Your task to perform on an android device: Open display settings Image 0: 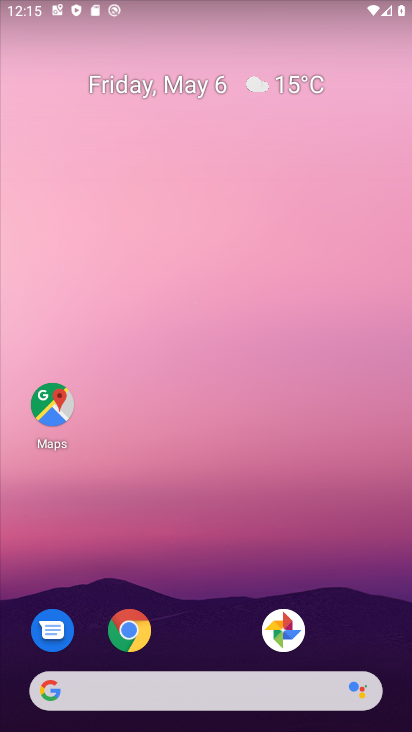
Step 0: drag from (284, 566) to (331, 59)
Your task to perform on an android device: Open display settings Image 1: 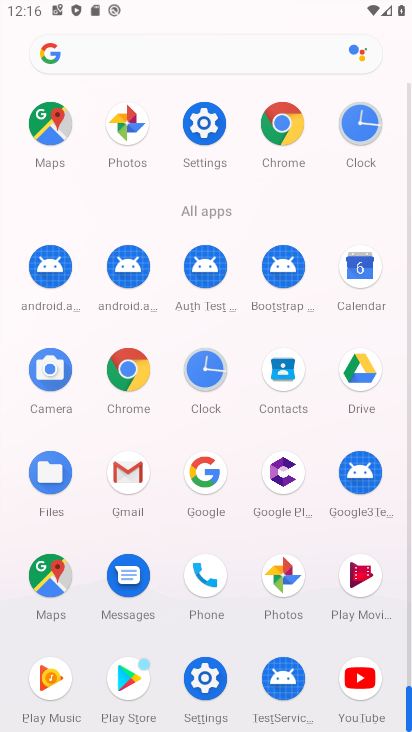
Step 1: click (198, 662)
Your task to perform on an android device: Open display settings Image 2: 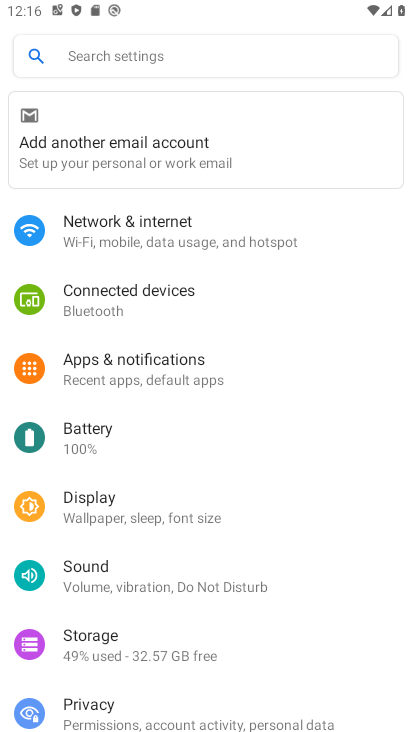
Step 2: click (99, 490)
Your task to perform on an android device: Open display settings Image 3: 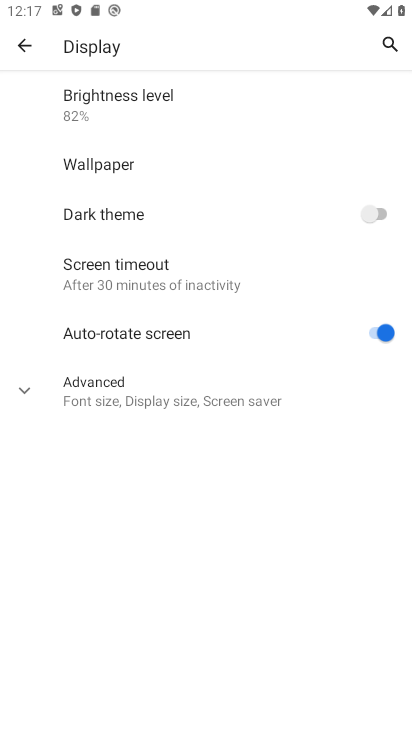
Step 3: task complete